Your task to perform on an android device: open device folders in google photos Image 0: 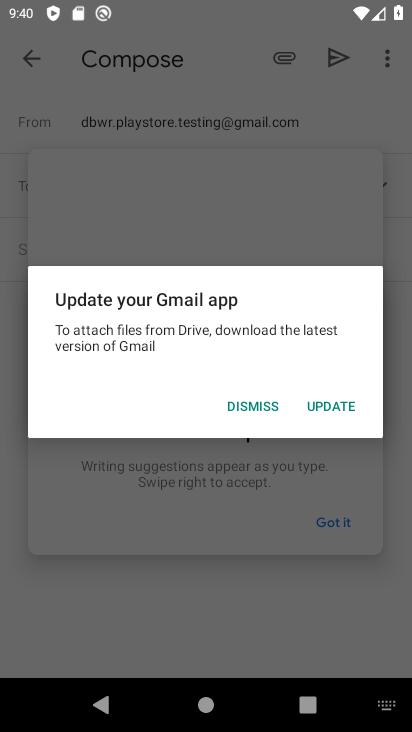
Step 0: press home button
Your task to perform on an android device: open device folders in google photos Image 1: 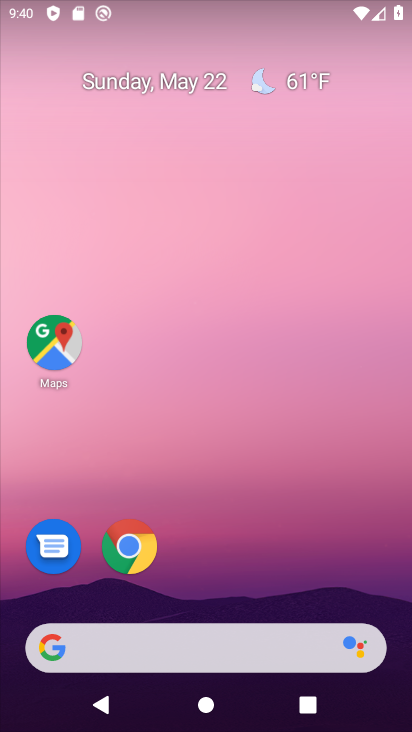
Step 1: drag from (192, 646) to (251, 3)
Your task to perform on an android device: open device folders in google photos Image 2: 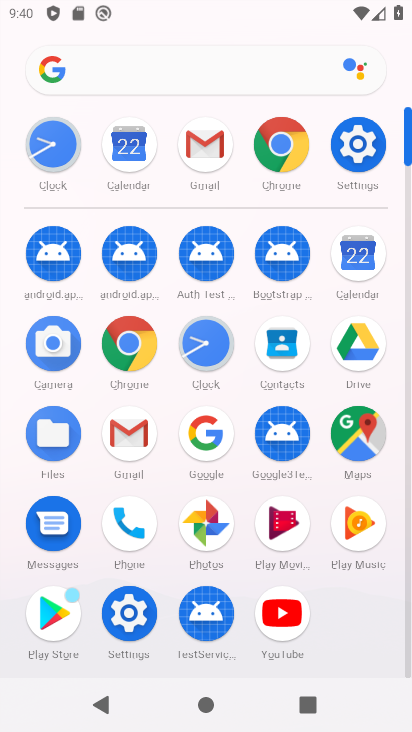
Step 2: click (201, 524)
Your task to perform on an android device: open device folders in google photos Image 3: 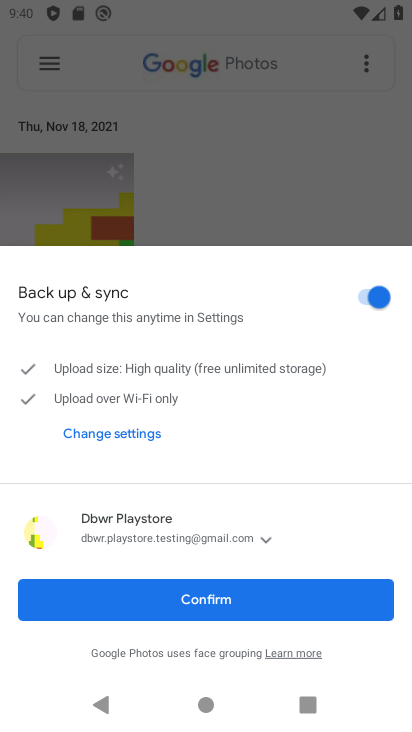
Step 3: click (222, 593)
Your task to perform on an android device: open device folders in google photos Image 4: 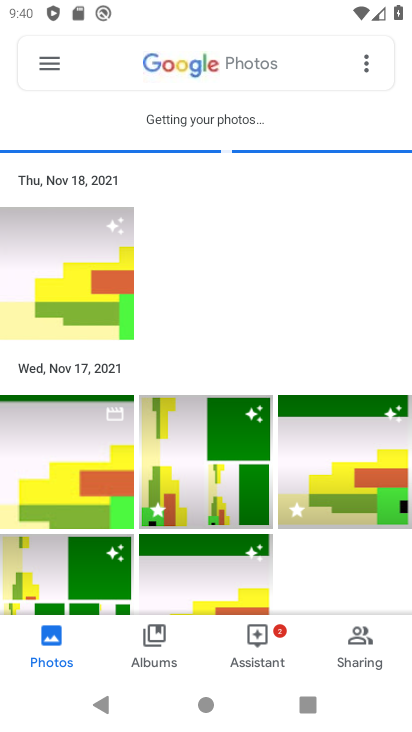
Step 4: click (151, 637)
Your task to perform on an android device: open device folders in google photos Image 5: 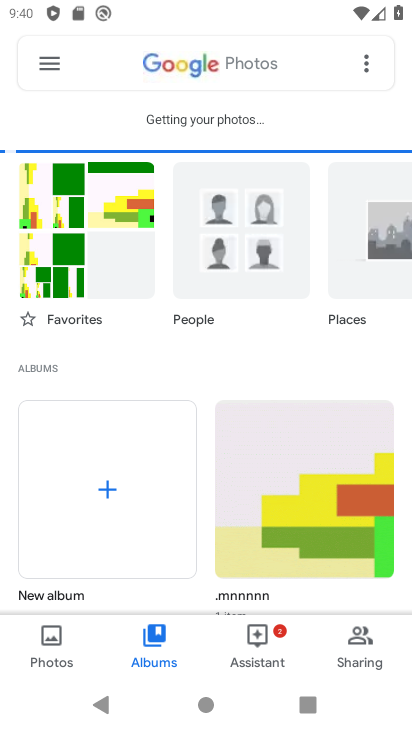
Step 5: task complete